Your task to perform on an android device: Play the last video I watched on Youtube Image 0: 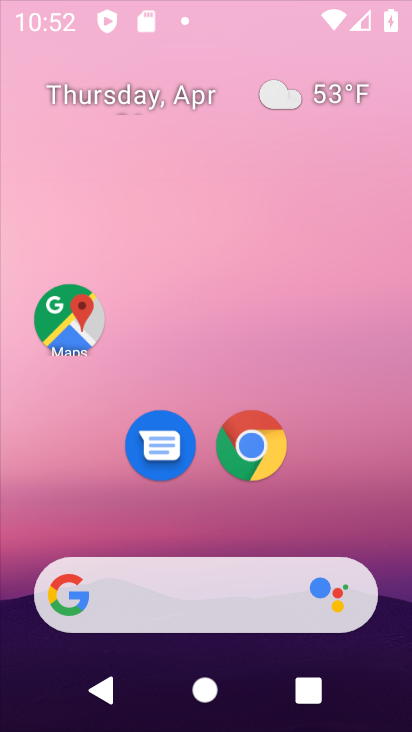
Step 0: press home button
Your task to perform on an android device: Play the last video I watched on Youtube Image 1: 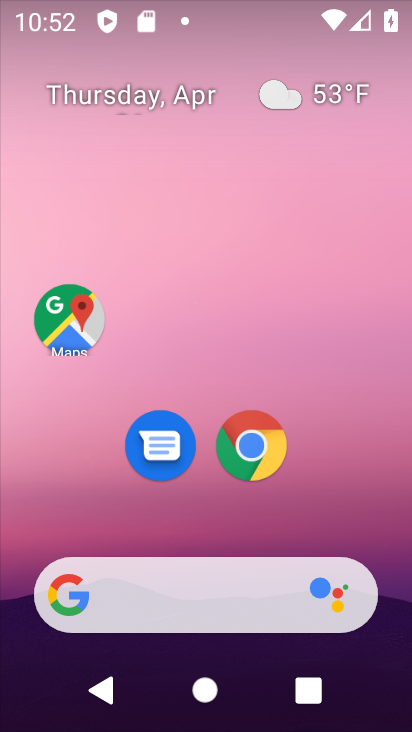
Step 1: drag from (163, 607) to (306, 241)
Your task to perform on an android device: Play the last video I watched on Youtube Image 2: 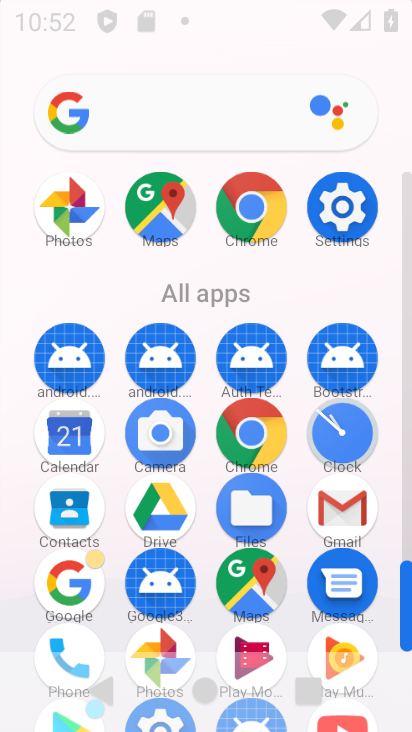
Step 2: drag from (217, 568) to (364, 120)
Your task to perform on an android device: Play the last video I watched on Youtube Image 3: 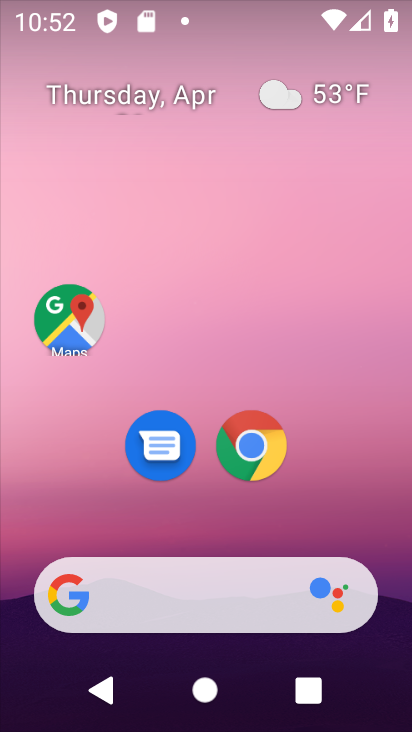
Step 3: drag from (179, 588) to (305, 242)
Your task to perform on an android device: Play the last video I watched on Youtube Image 4: 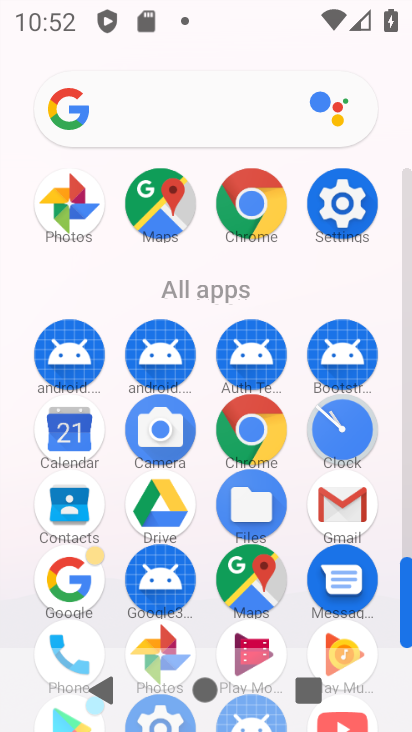
Step 4: drag from (208, 593) to (384, 82)
Your task to perform on an android device: Play the last video I watched on Youtube Image 5: 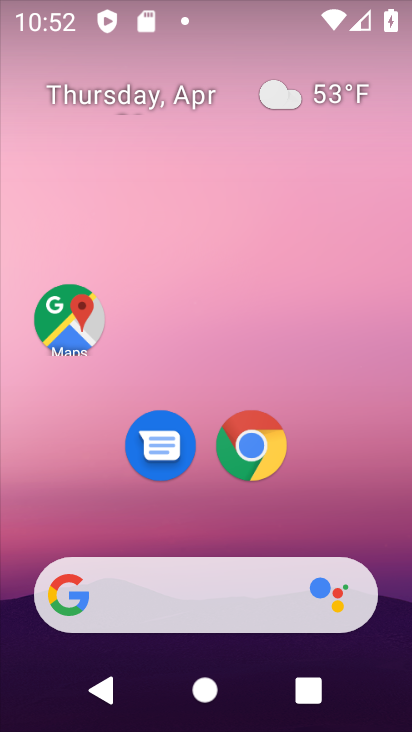
Step 5: drag from (157, 594) to (318, 94)
Your task to perform on an android device: Play the last video I watched on Youtube Image 6: 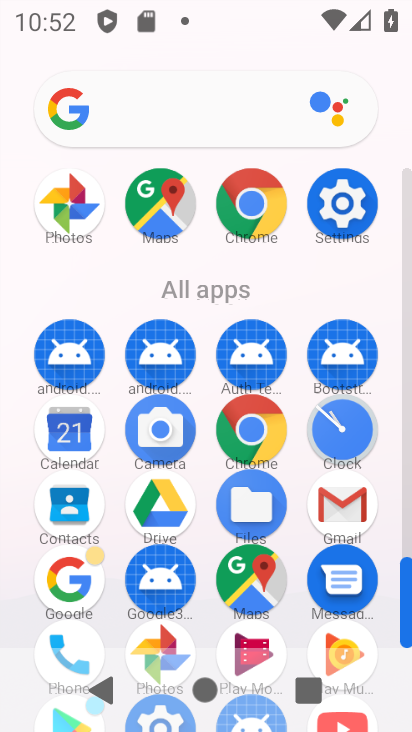
Step 6: drag from (207, 566) to (310, 243)
Your task to perform on an android device: Play the last video I watched on Youtube Image 7: 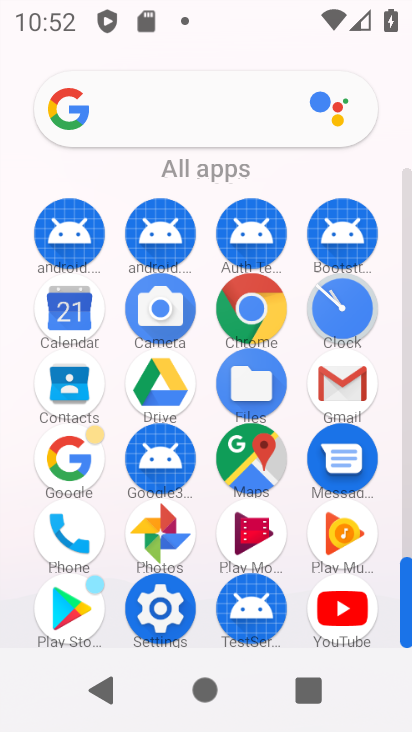
Step 7: click (341, 611)
Your task to perform on an android device: Play the last video I watched on Youtube Image 8: 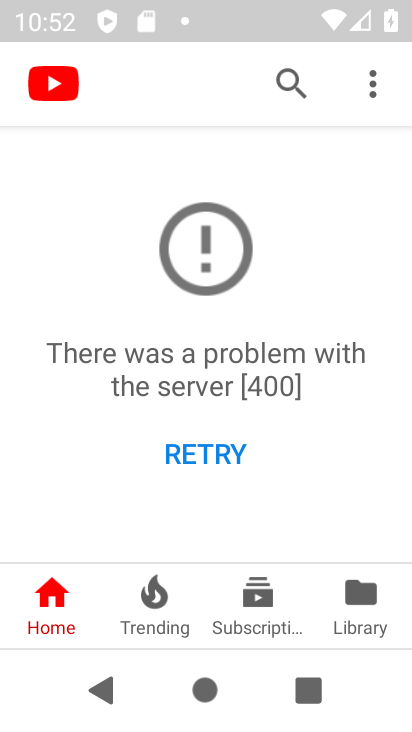
Step 8: click (364, 606)
Your task to perform on an android device: Play the last video I watched on Youtube Image 9: 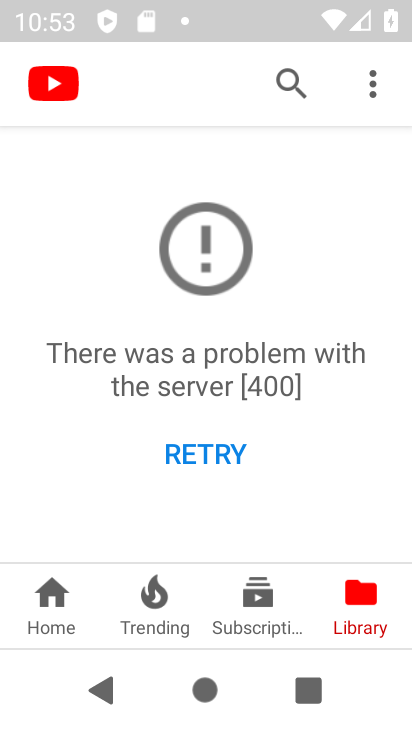
Step 9: task complete